Your task to perform on an android device: Clear the cart on bestbuy.com. Search for jbl flip 4 on bestbuy.com, select the first entry, and add it to the cart. Image 0: 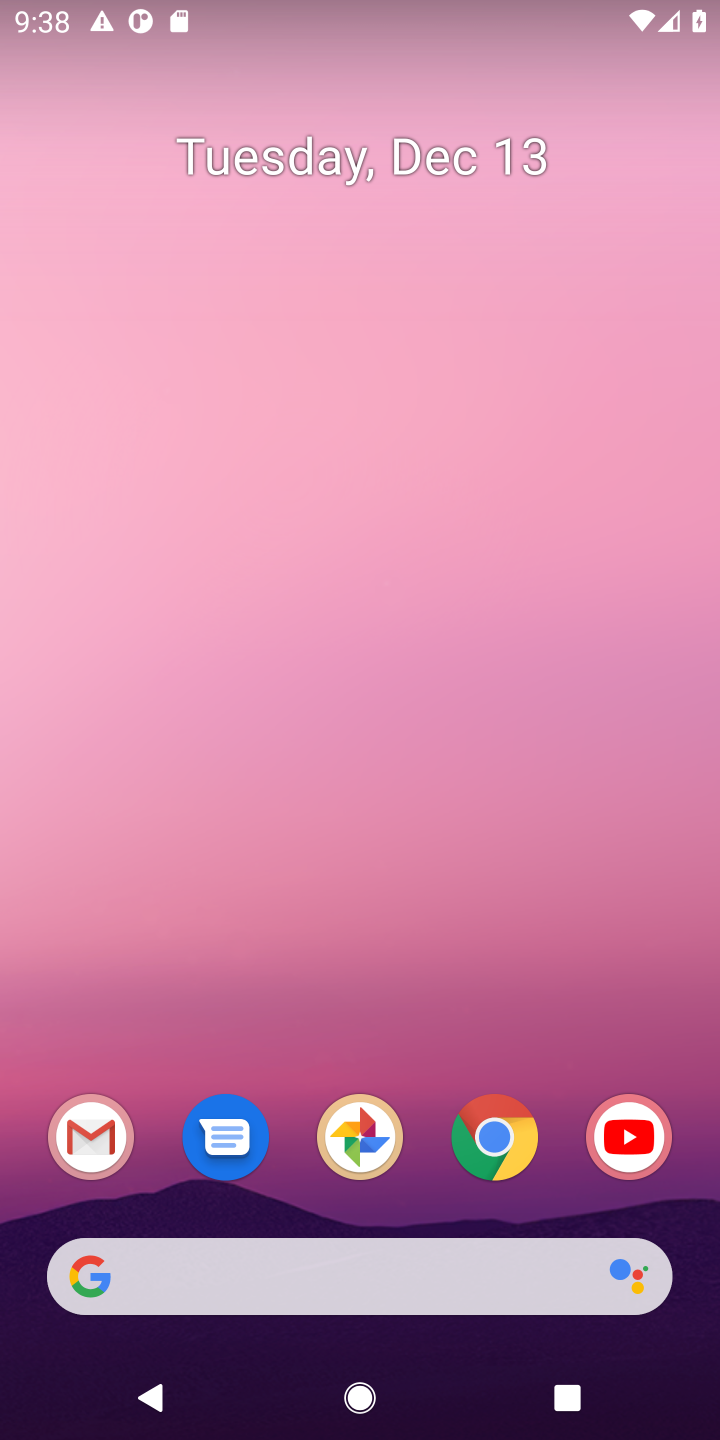
Step 0: click (508, 1151)
Your task to perform on an android device: Clear the cart on bestbuy.com. Search for jbl flip 4 on bestbuy.com, select the first entry, and add it to the cart. Image 1: 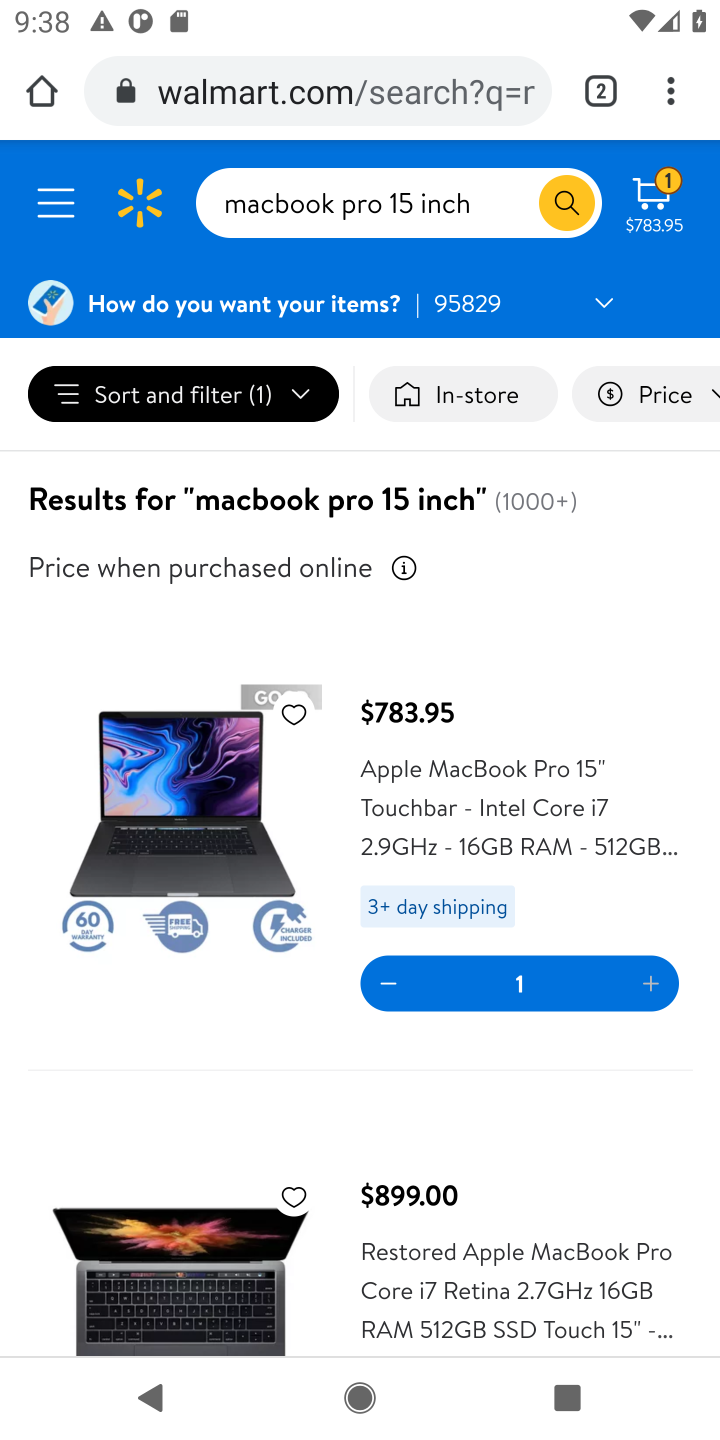
Step 1: click (588, 94)
Your task to perform on an android device: Clear the cart on bestbuy.com. Search for jbl flip 4 on bestbuy.com, select the first entry, and add it to the cart. Image 2: 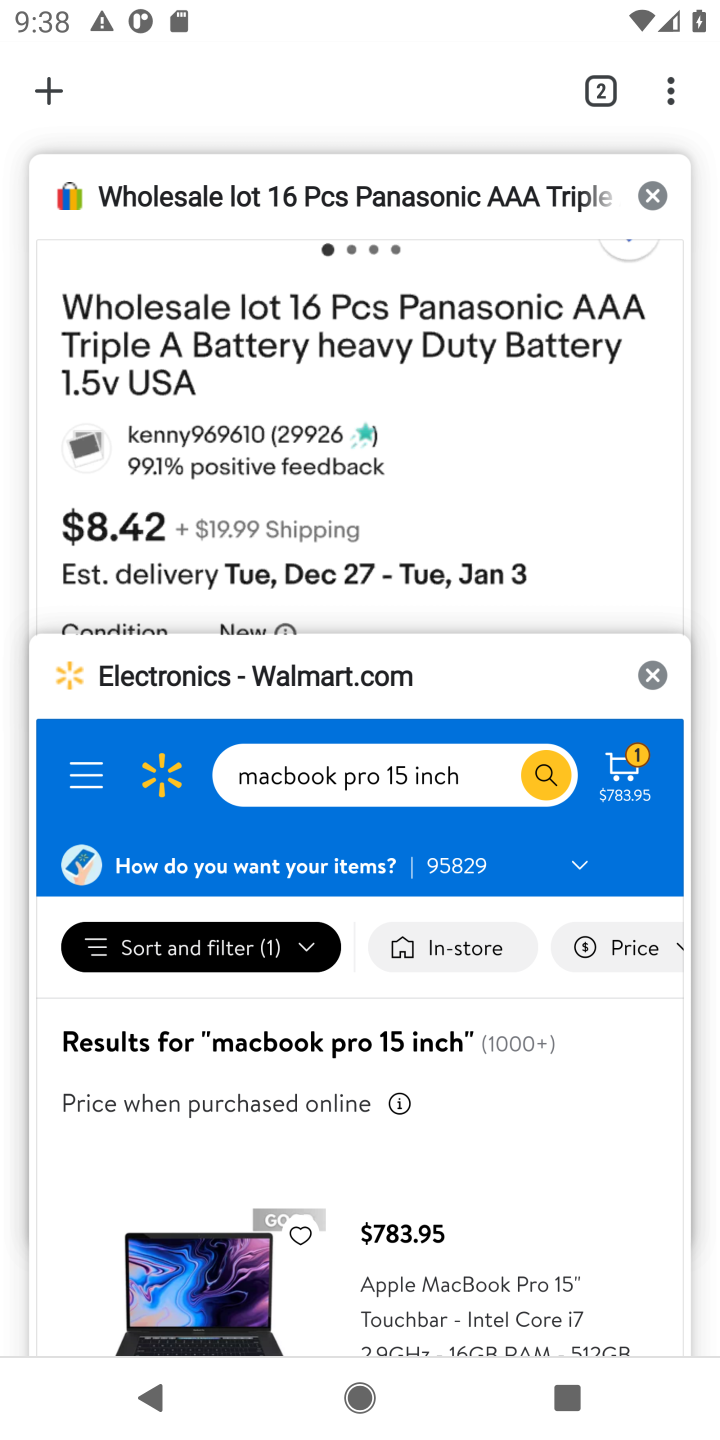
Step 2: click (598, 90)
Your task to perform on an android device: Clear the cart on bestbuy.com. Search for jbl flip 4 on bestbuy.com, select the first entry, and add it to the cart. Image 3: 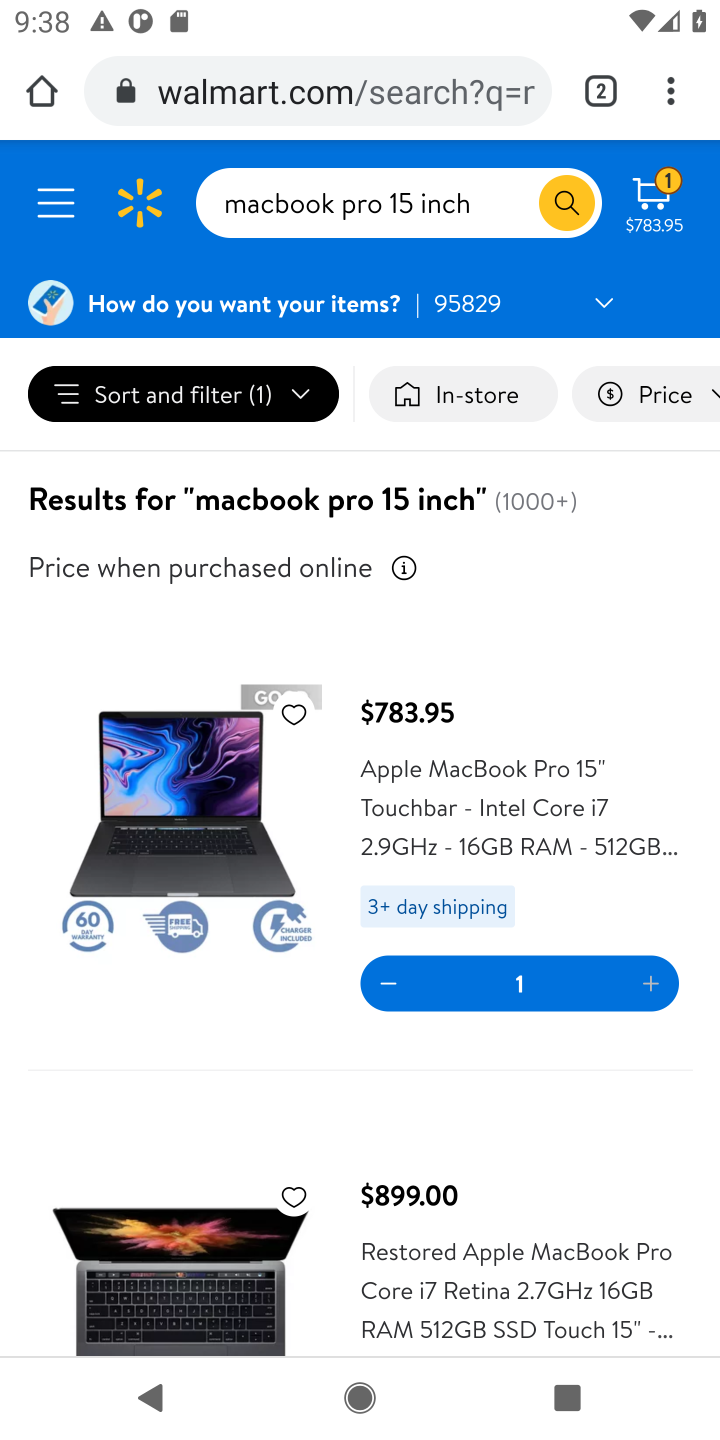
Step 3: click (592, 87)
Your task to perform on an android device: Clear the cart on bestbuy.com. Search for jbl flip 4 on bestbuy.com, select the first entry, and add it to the cart. Image 4: 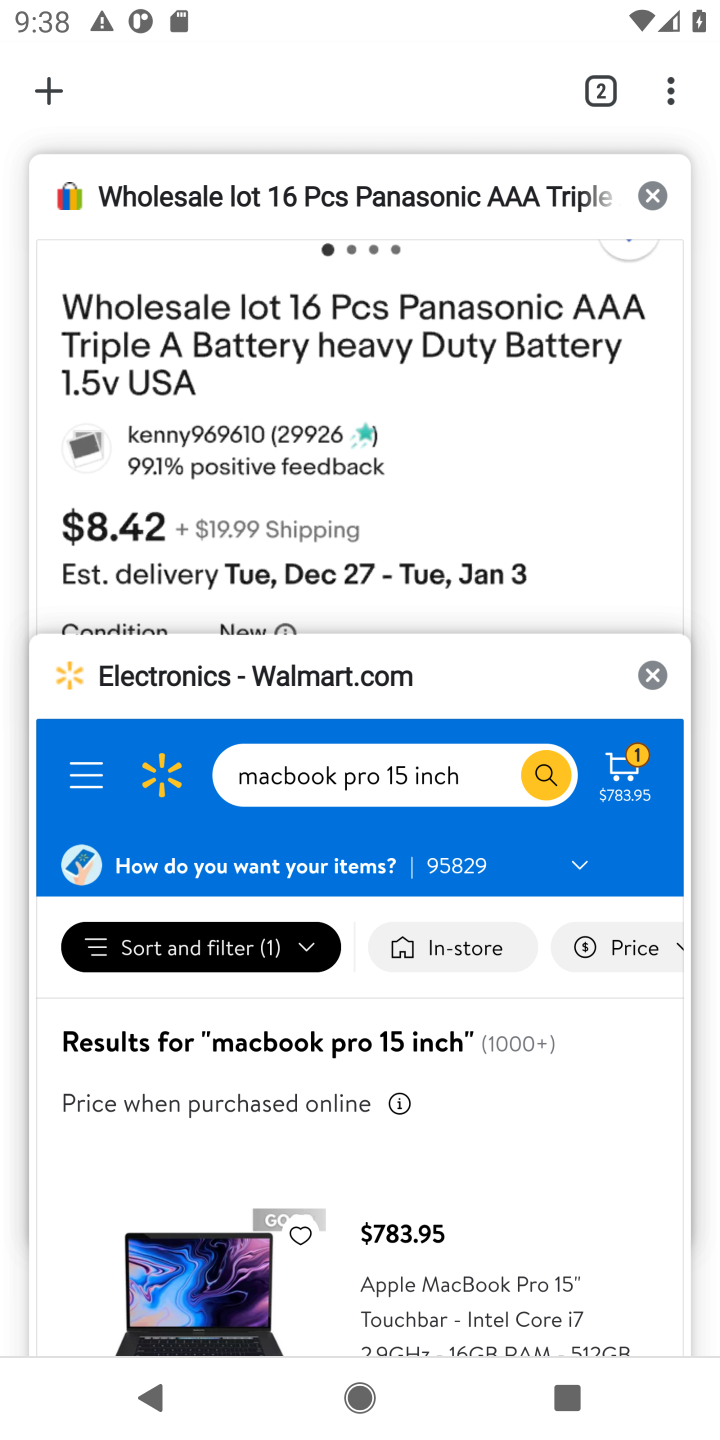
Step 4: click (42, 89)
Your task to perform on an android device: Clear the cart on bestbuy.com. Search for jbl flip 4 on bestbuy.com, select the first entry, and add it to the cart. Image 5: 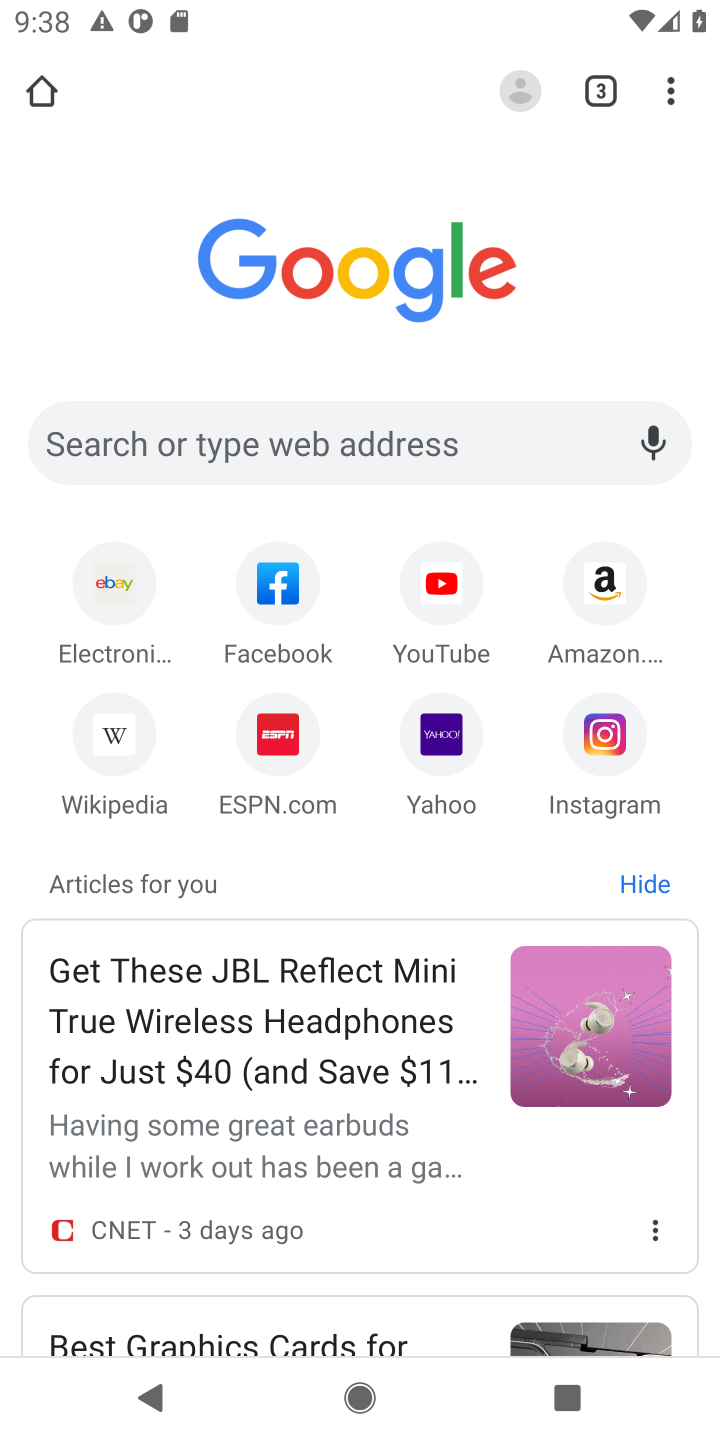
Step 5: click (390, 434)
Your task to perform on an android device: Clear the cart on bestbuy.com. Search for jbl flip 4 on bestbuy.com, select the first entry, and add it to the cart. Image 6: 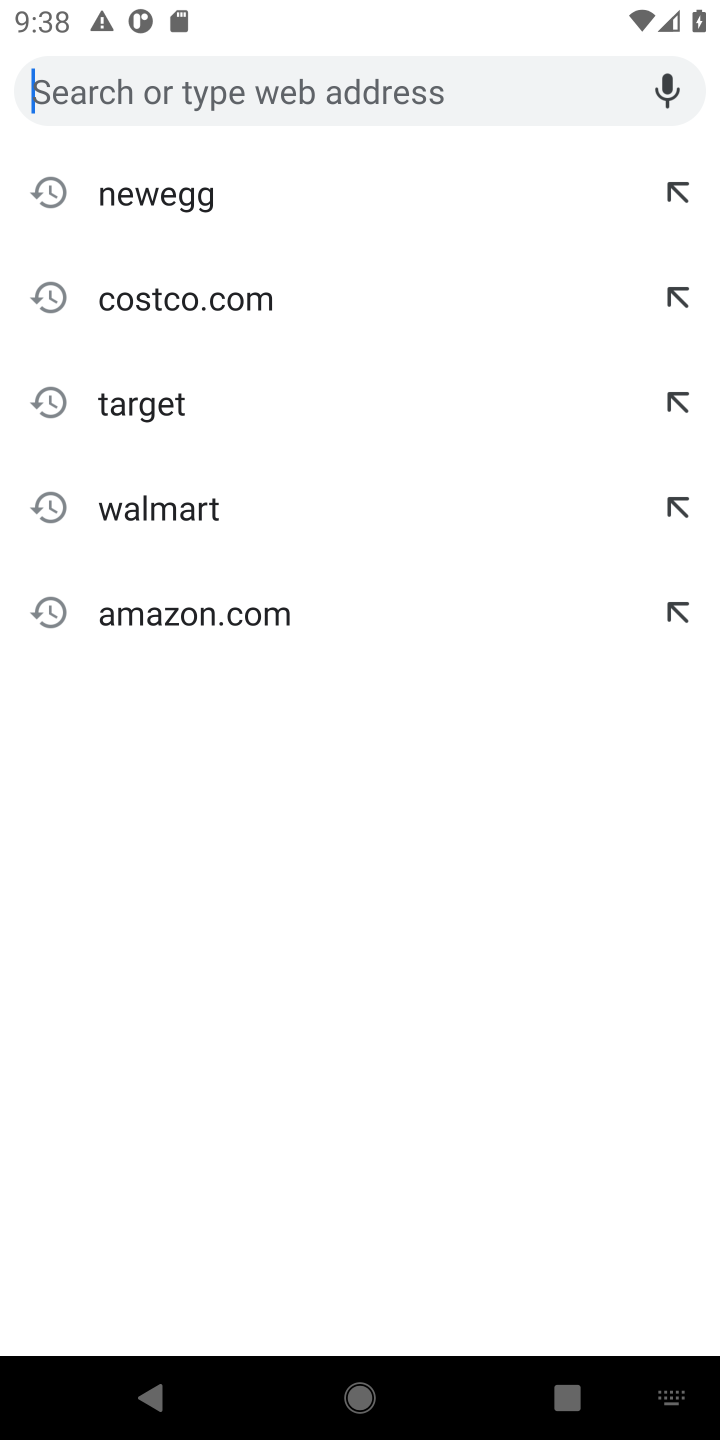
Step 6: type "bestbuy"
Your task to perform on an android device: Clear the cart on bestbuy.com. Search for jbl flip 4 on bestbuy.com, select the first entry, and add it to the cart. Image 7: 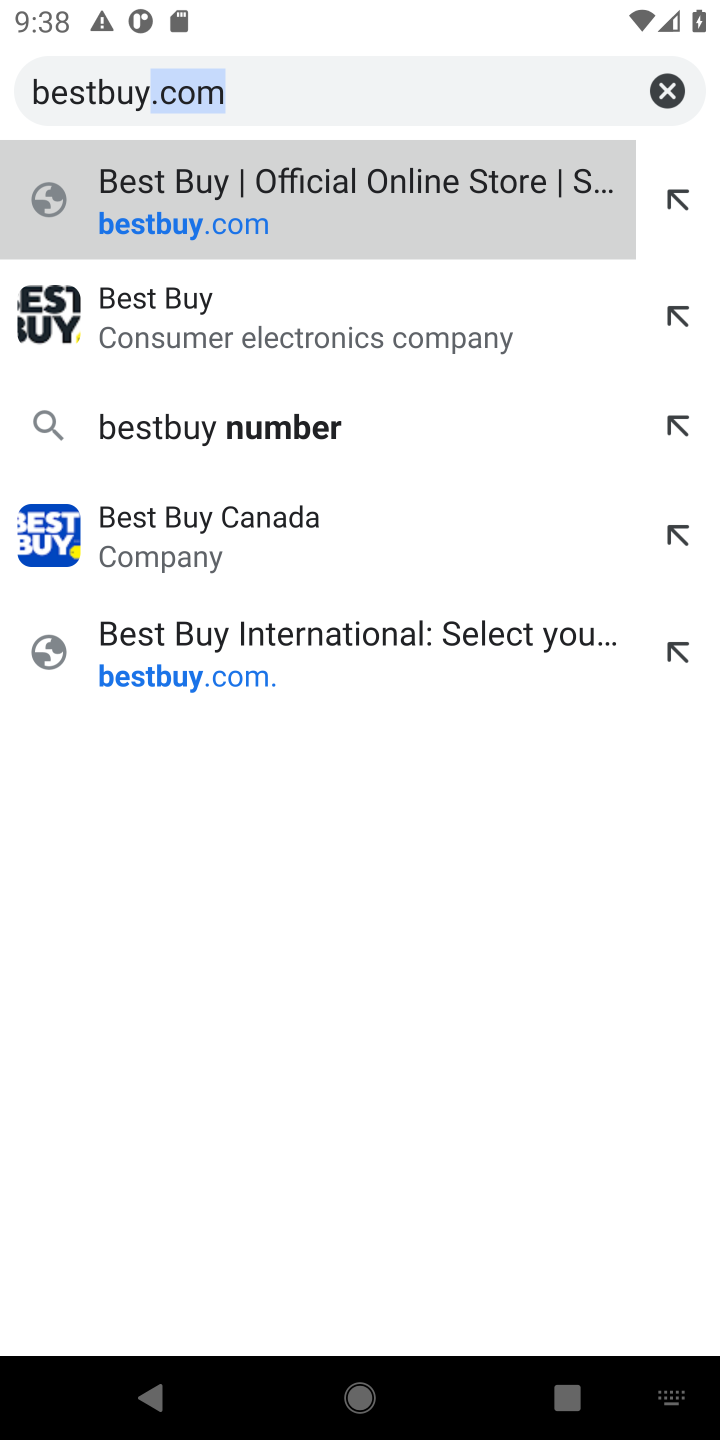
Step 7: click (327, 205)
Your task to perform on an android device: Clear the cart on bestbuy.com. Search for jbl flip 4 on bestbuy.com, select the first entry, and add it to the cart. Image 8: 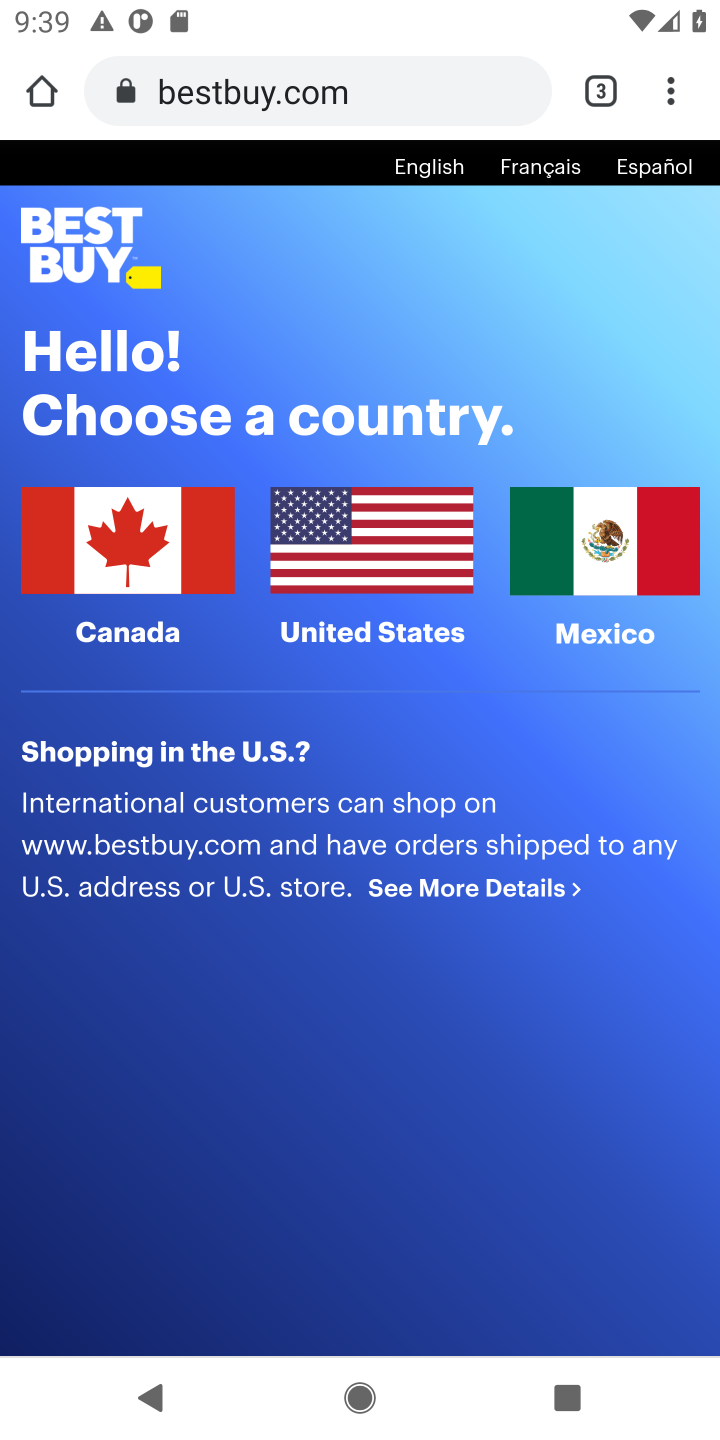
Step 8: click (385, 579)
Your task to perform on an android device: Clear the cart on bestbuy.com. Search for jbl flip 4 on bestbuy.com, select the first entry, and add it to the cart. Image 9: 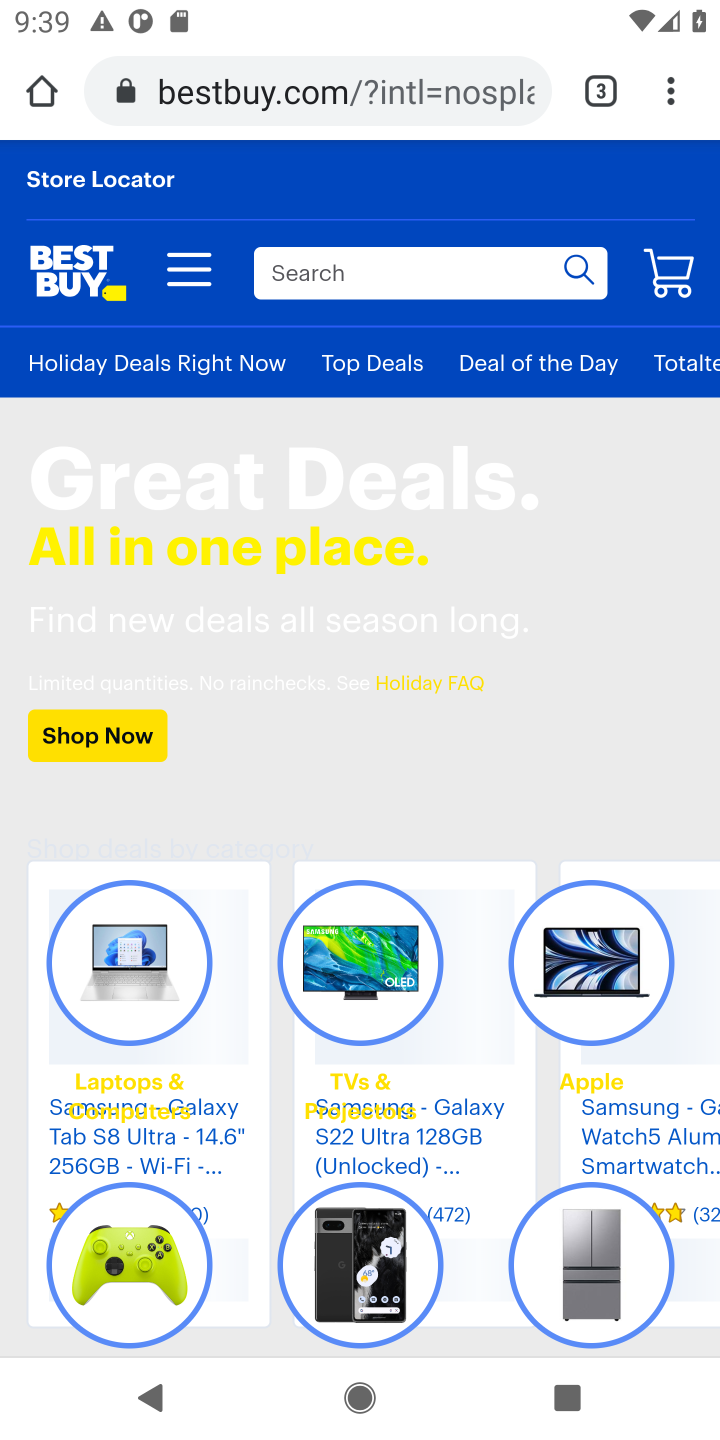
Step 9: click (355, 280)
Your task to perform on an android device: Clear the cart on bestbuy.com. Search for jbl flip 4 on bestbuy.com, select the first entry, and add it to the cart. Image 10: 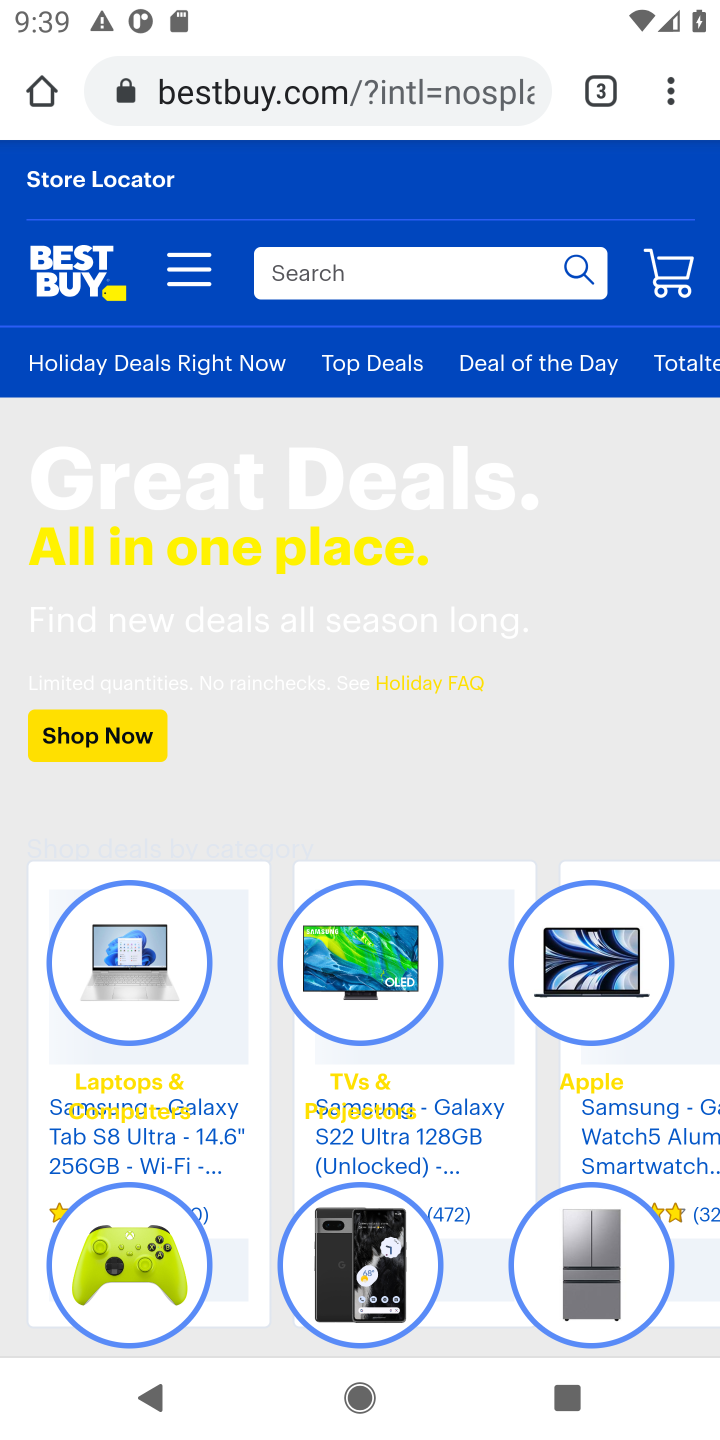
Step 10: type "jbl flip 4"
Your task to perform on an android device: Clear the cart on bestbuy.com. Search for jbl flip 4 on bestbuy.com, select the first entry, and add it to the cart. Image 11: 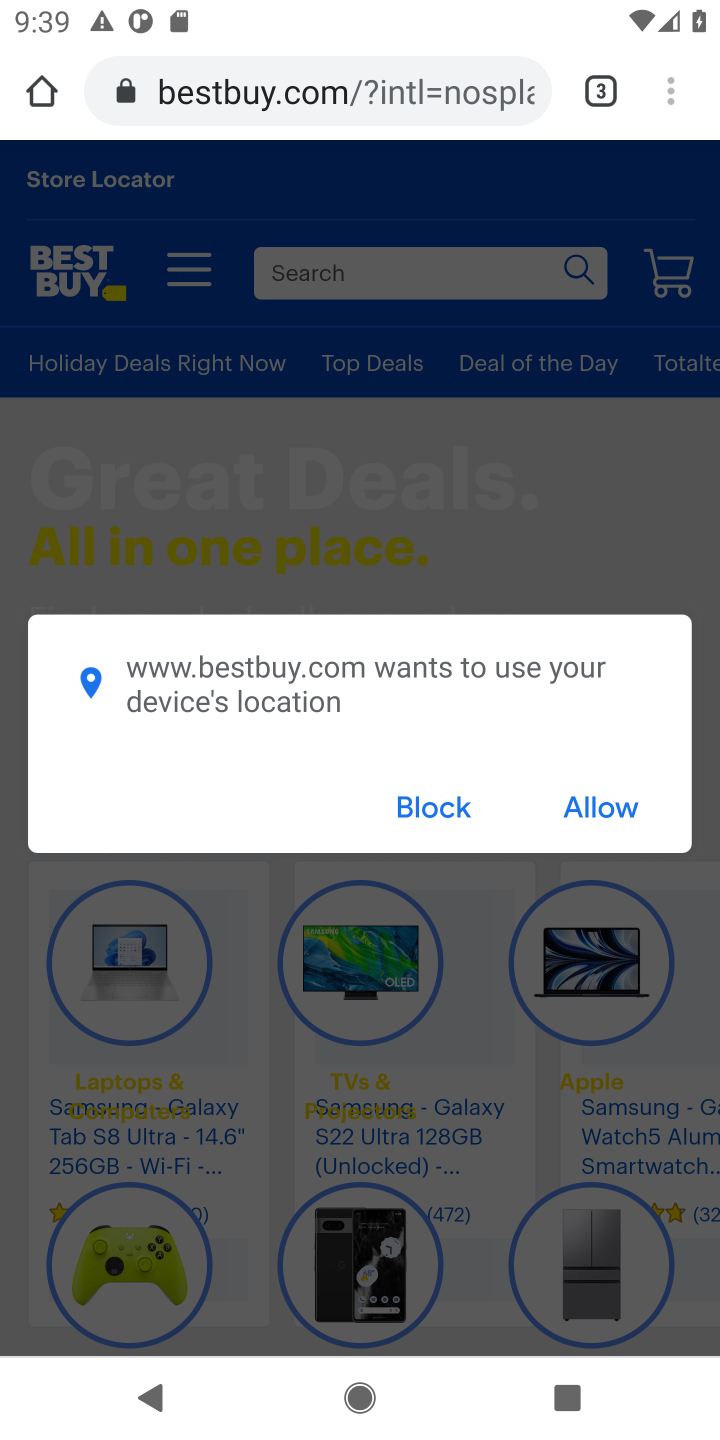
Step 11: click (600, 805)
Your task to perform on an android device: Clear the cart on bestbuy.com. Search for jbl flip 4 on bestbuy.com, select the first entry, and add it to the cart. Image 12: 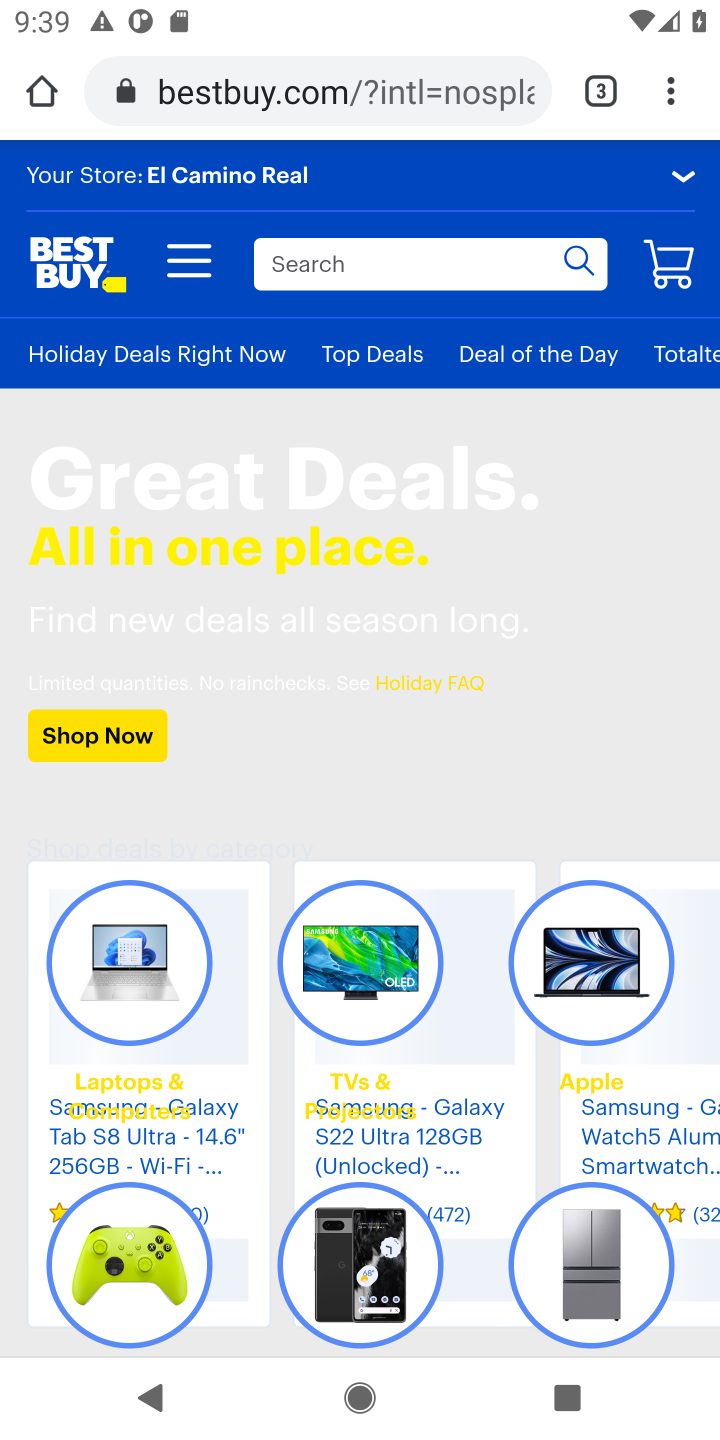
Step 12: click (482, 279)
Your task to perform on an android device: Clear the cart on bestbuy.com. Search for jbl flip 4 on bestbuy.com, select the first entry, and add it to the cart. Image 13: 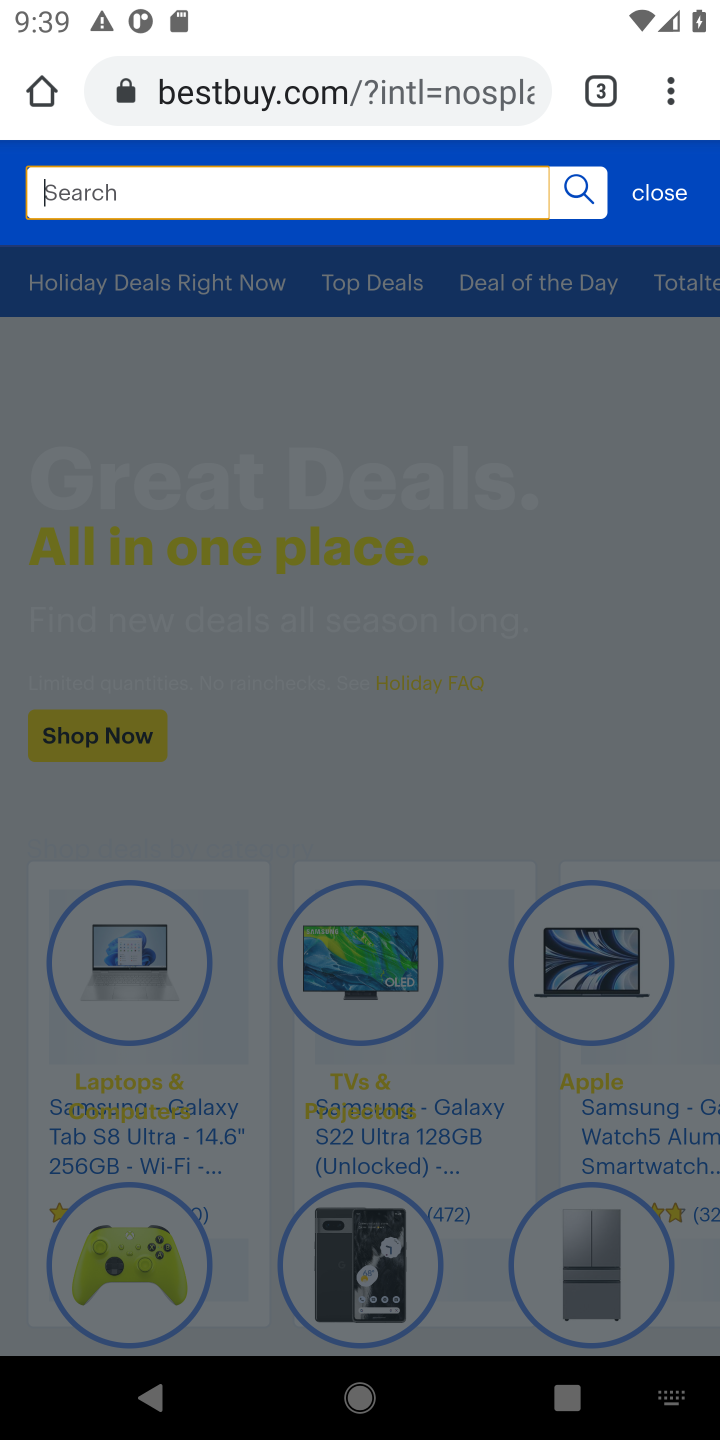
Step 13: type "jbl flip 4"
Your task to perform on an android device: Clear the cart on bestbuy.com. Search for jbl flip 4 on bestbuy.com, select the first entry, and add it to the cart. Image 14: 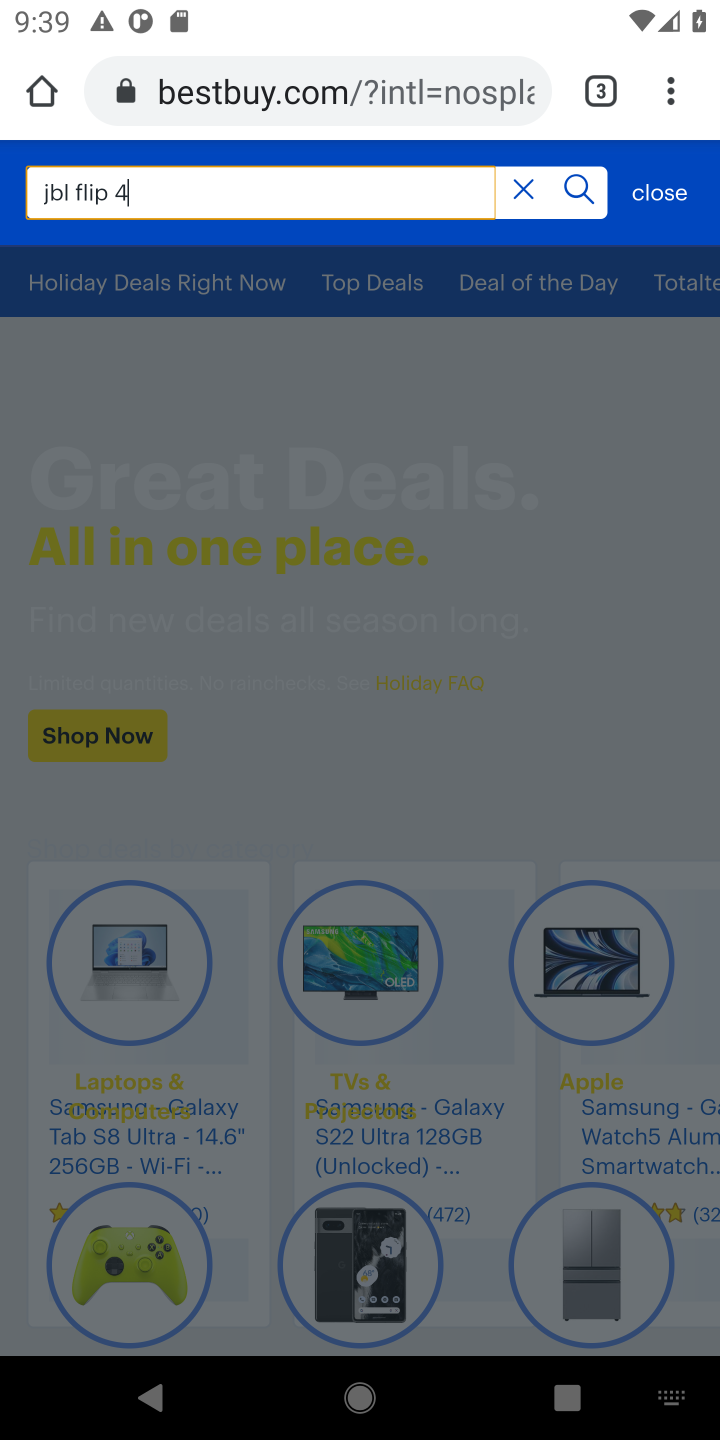
Step 14: press enter
Your task to perform on an android device: Clear the cart on bestbuy.com. Search for jbl flip 4 on bestbuy.com, select the first entry, and add it to the cart. Image 15: 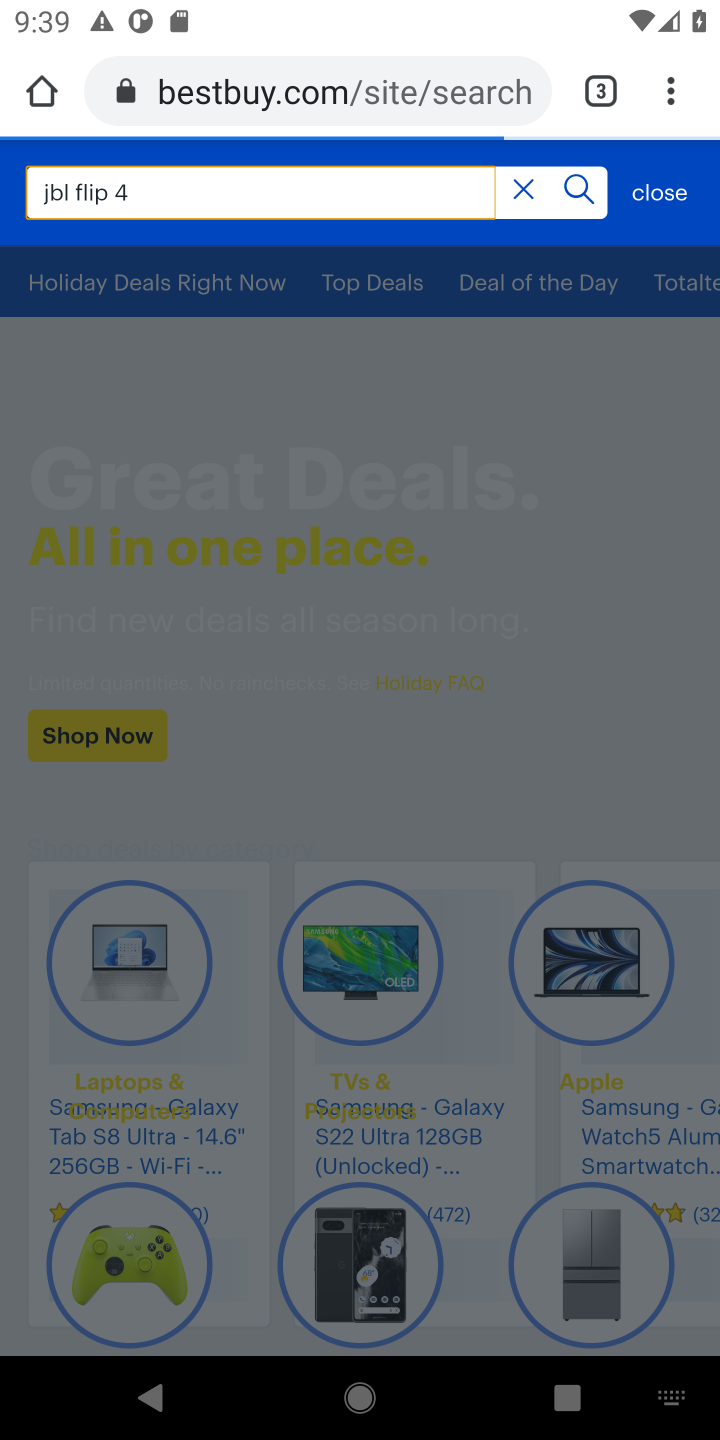
Step 15: click (578, 183)
Your task to perform on an android device: Clear the cart on bestbuy.com. Search for jbl flip 4 on bestbuy.com, select the first entry, and add it to the cart. Image 16: 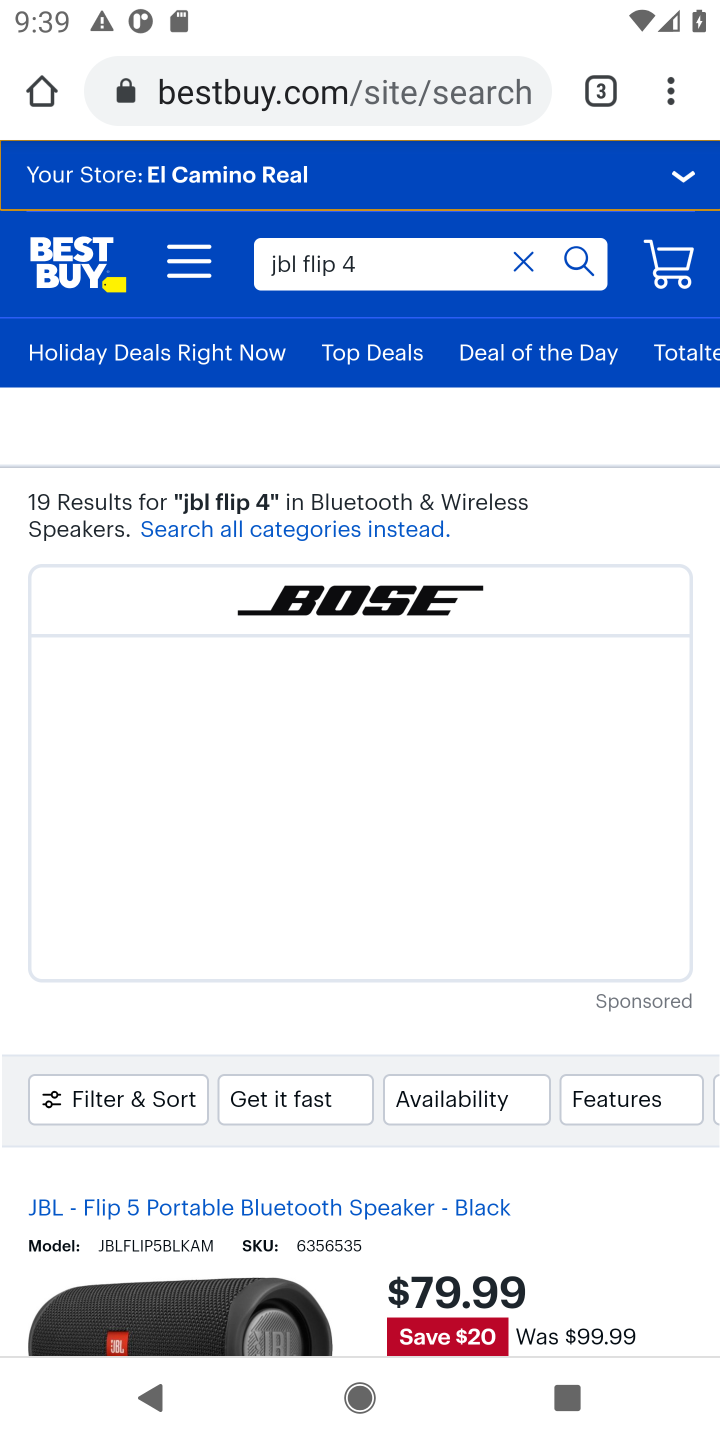
Step 16: drag from (602, 1268) to (439, 253)
Your task to perform on an android device: Clear the cart on bestbuy.com. Search for jbl flip 4 on bestbuy.com, select the first entry, and add it to the cart. Image 17: 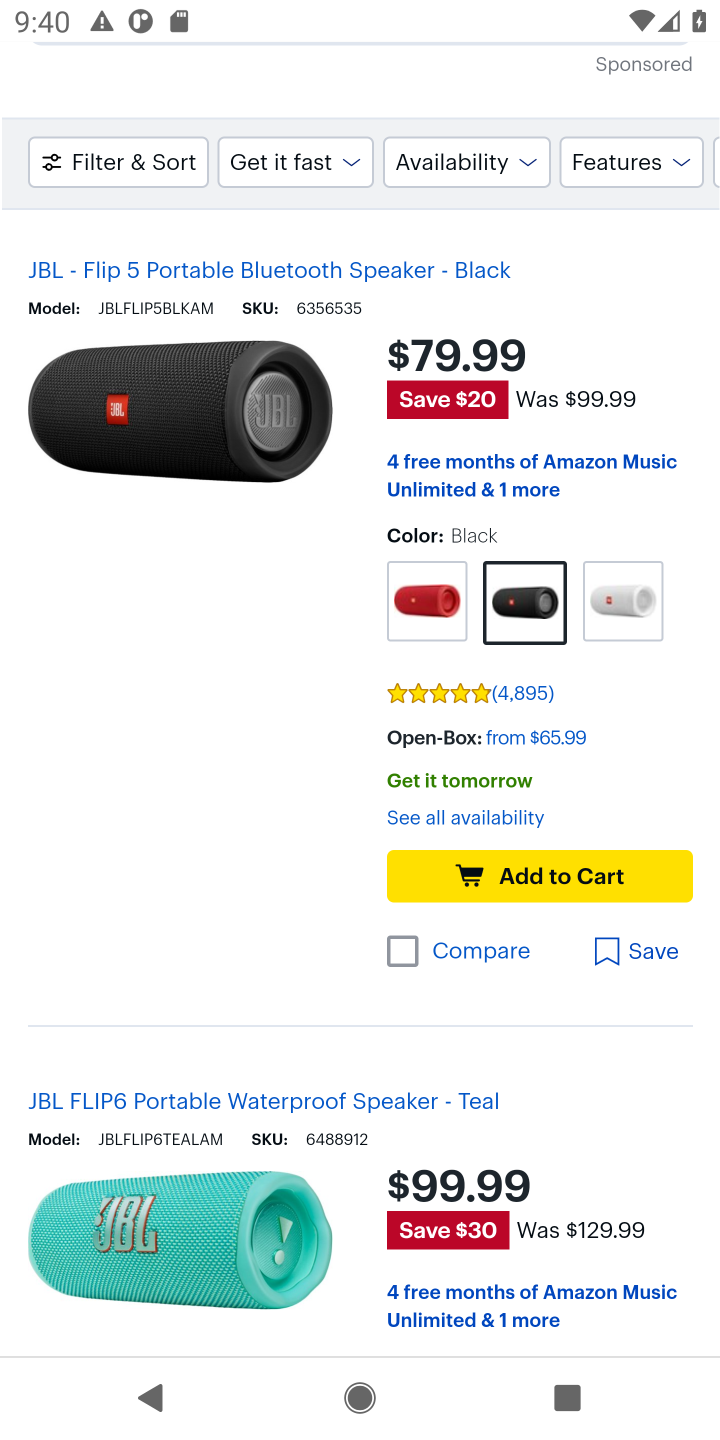
Step 17: click (601, 784)
Your task to perform on an android device: Clear the cart on bestbuy.com. Search for jbl flip 4 on bestbuy.com, select the first entry, and add it to the cart. Image 18: 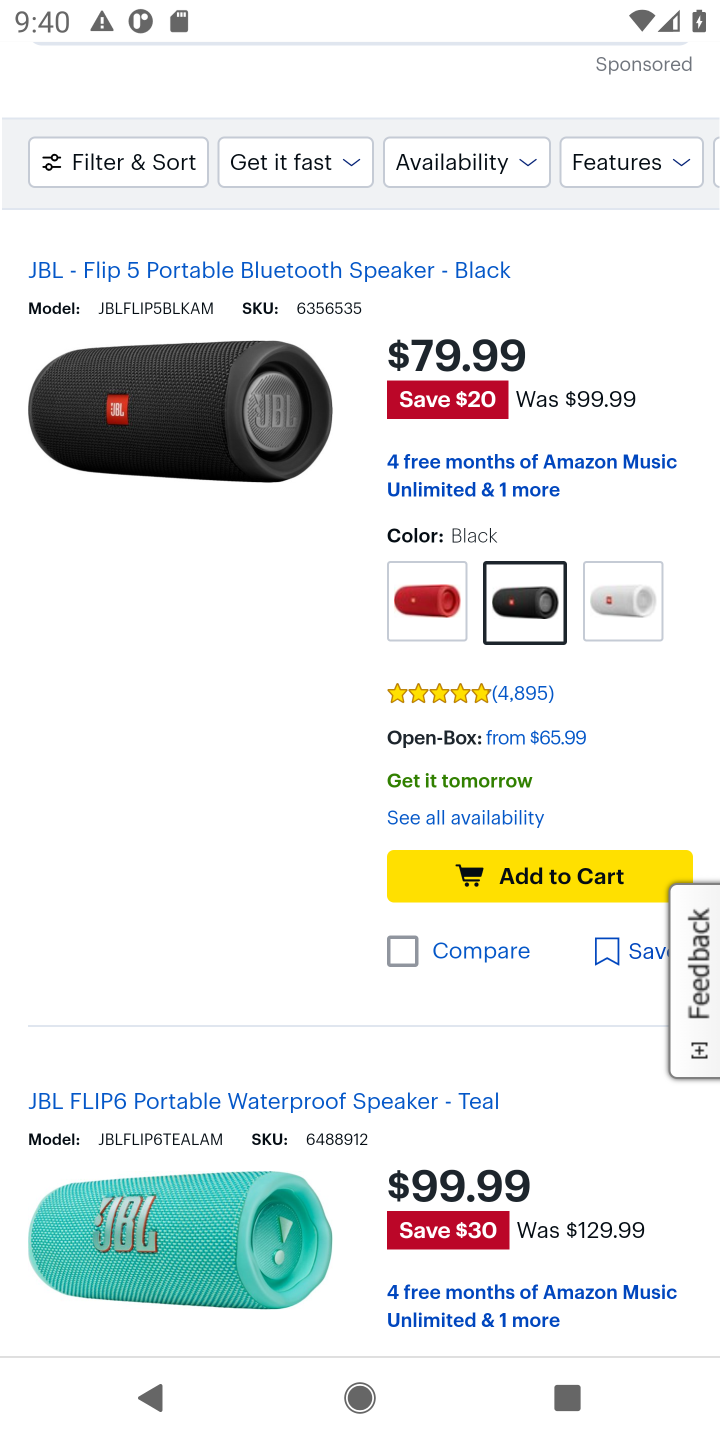
Step 18: click (542, 876)
Your task to perform on an android device: Clear the cart on bestbuy.com. Search for jbl flip 4 on bestbuy.com, select the first entry, and add it to the cart. Image 19: 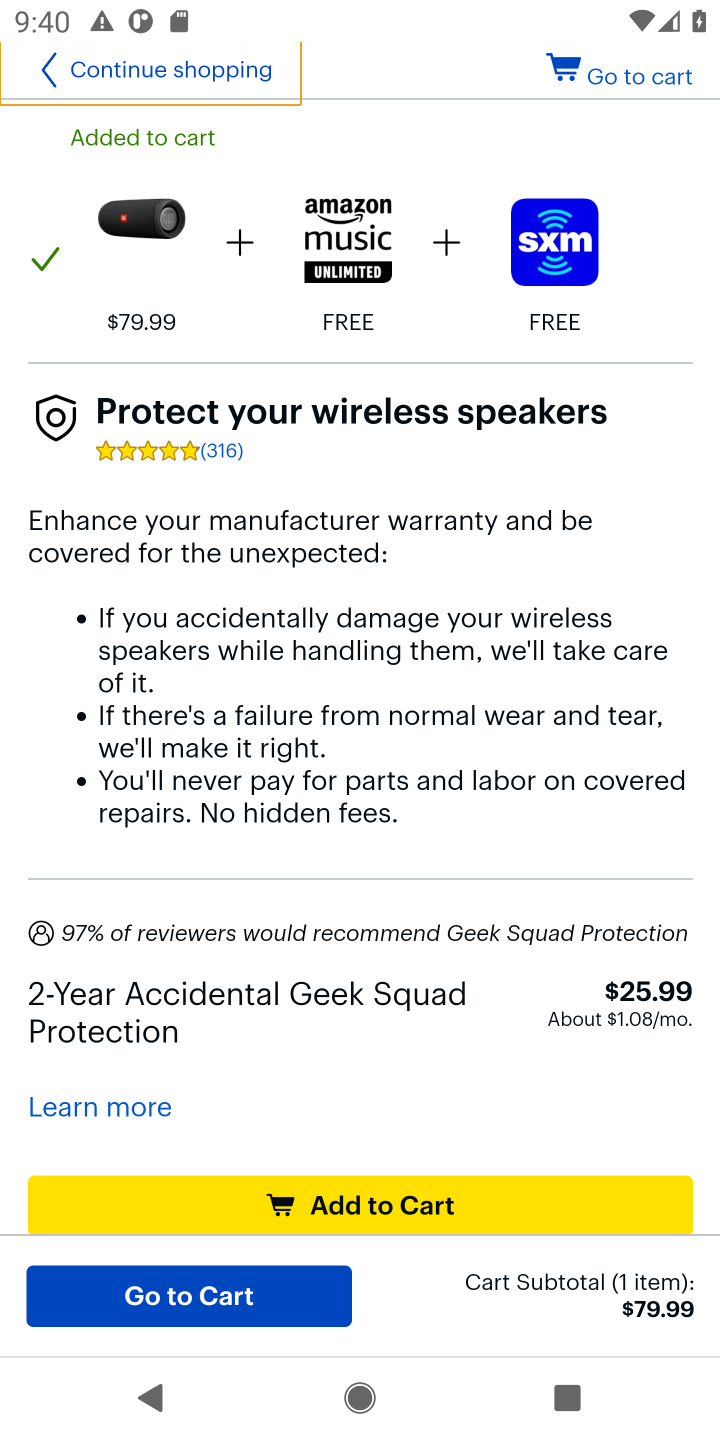
Step 19: task complete